Your task to perform on an android device: Is it going to rain tomorrow? Image 0: 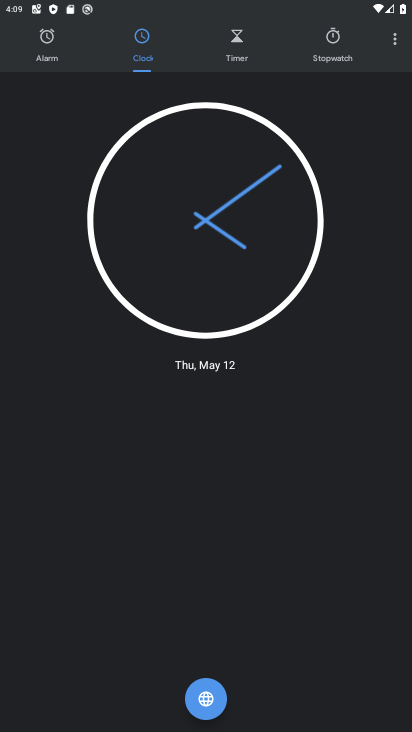
Step 0: press home button
Your task to perform on an android device: Is it going to rain tomorrow? Image 1: 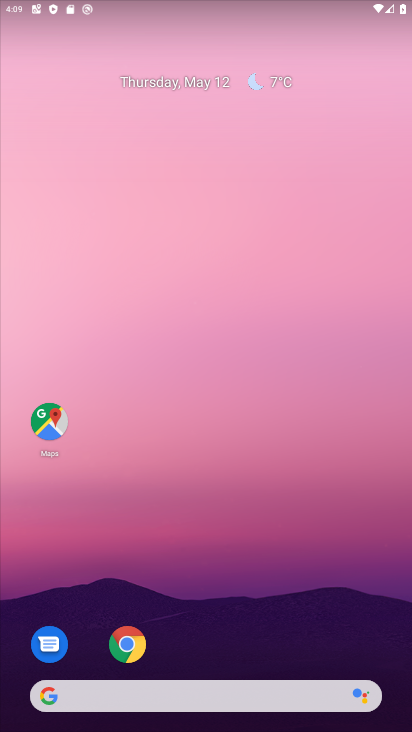
Step 1: drag from (209, 665) to (213, 96)
Your task to perform on an android device: Is it going to rain tomorrow? Image 2: 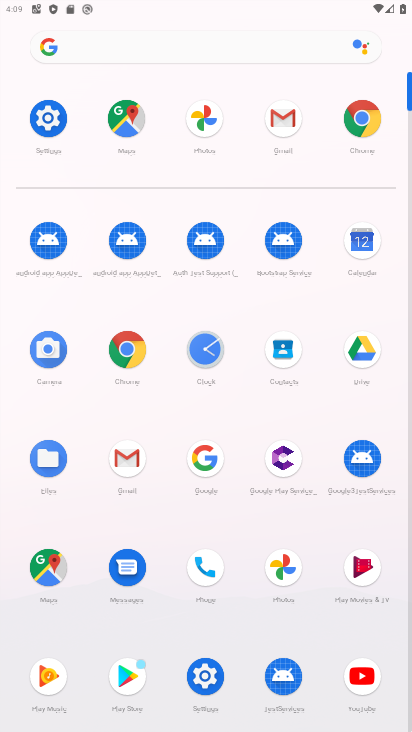
Step 2: press back button
Your task to perform on an android device: Is it going to rain tomorrow? Image 3: 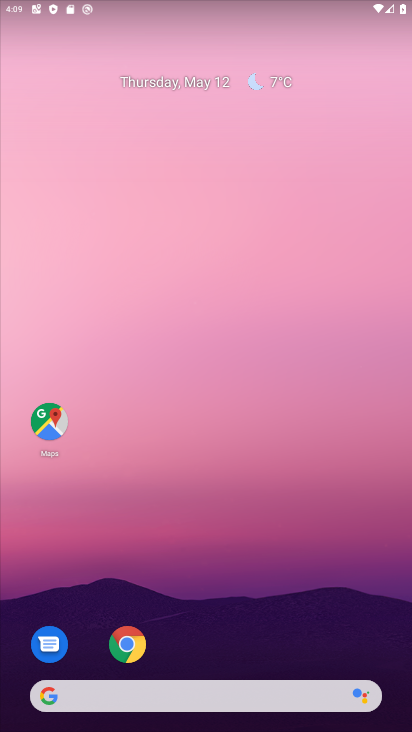
Step 3: click (273, 82)
Your task to perform on an android device: Is it going to rain tomorrow? Image 4: 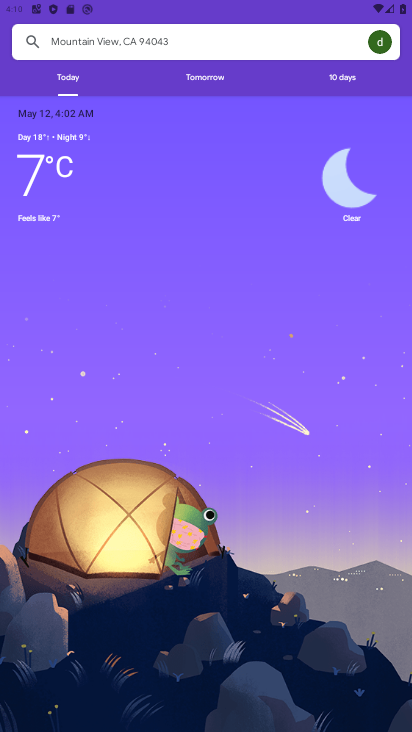
Step 4: drag from (189, 633) to (215, 113)
Your task to perform on an android device: Is it going to rain tomorrow? Image 5: 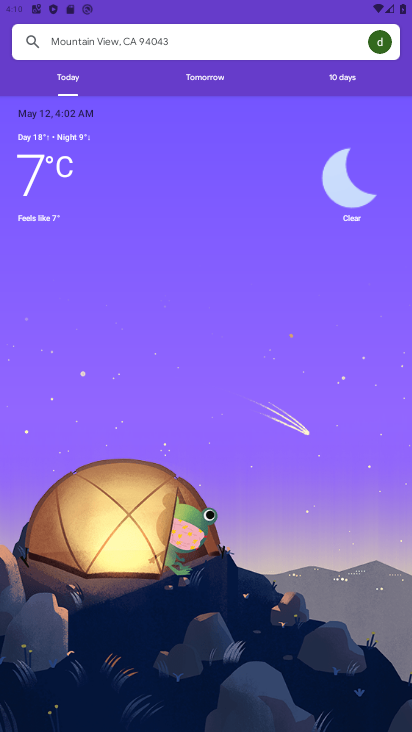
Step 5: click (205, 83)
Your task to perform on an android device: Is it going to rain tomorrow? Image 6: 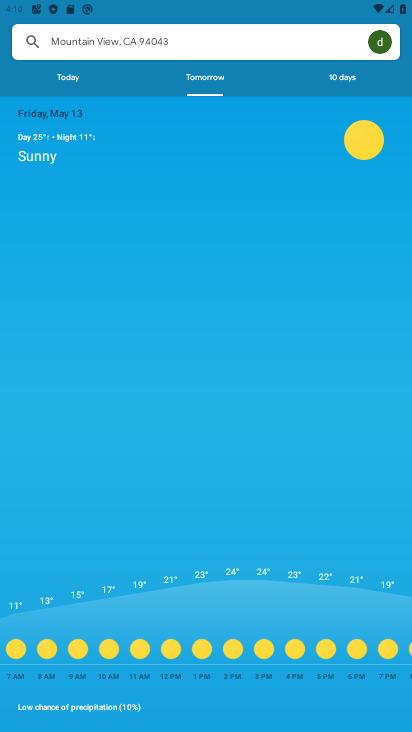
Step 6: drag from (345, 654) to (90, 640)
Your task to perform on an android device: Is it going to rain tomorrow? Image 7: 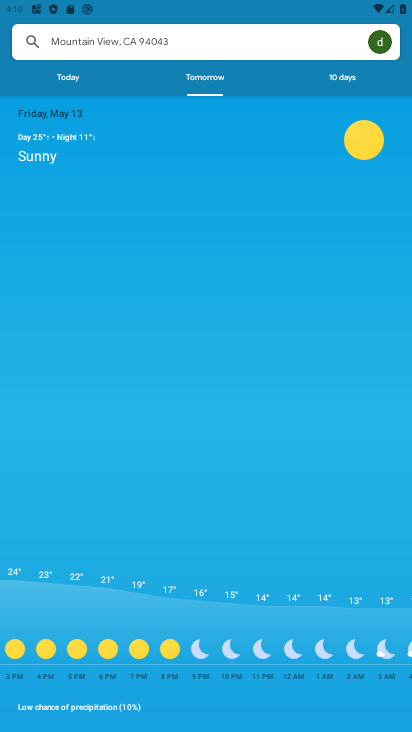
Step 7: drag from (361, 654) to (129, 650)
Your task to perform on an android device: Is it going to rain tomorrow? Image 8: 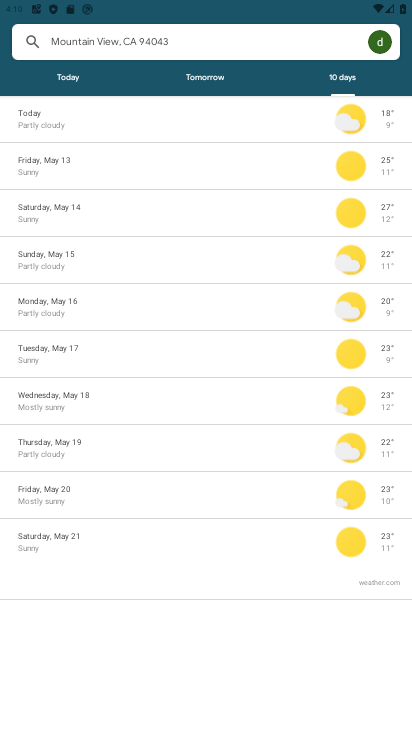
Step 8: click (193, 82)
Your task to perform on an android device: Is it going to rain tomorrow? Image 9: 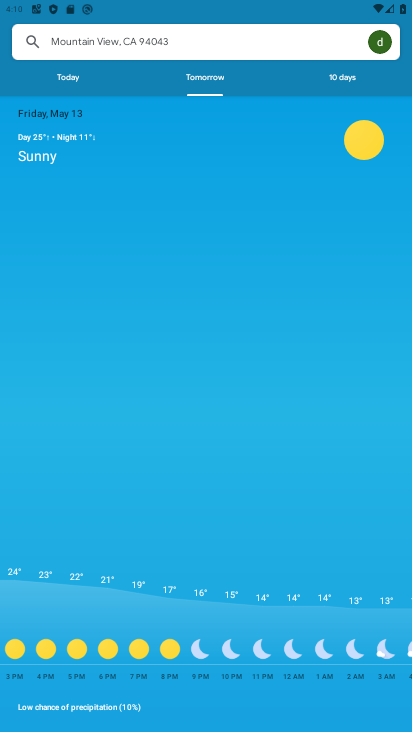
Step 9: task complete